Your task to perform on an android device: check out phone information Image 0: 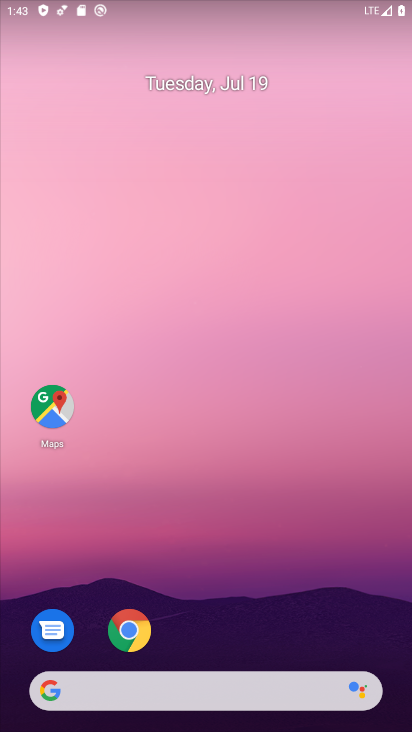
Step 0: press home button
Your task to perform on an android device: check out phone information Image 1: 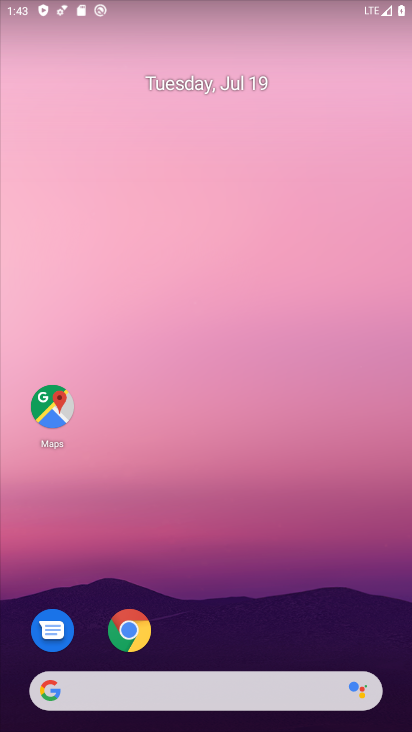
Step 1: drag from (230, 642) to (221, 0)
Your task to perform on an android device: check out phone information Image 2: 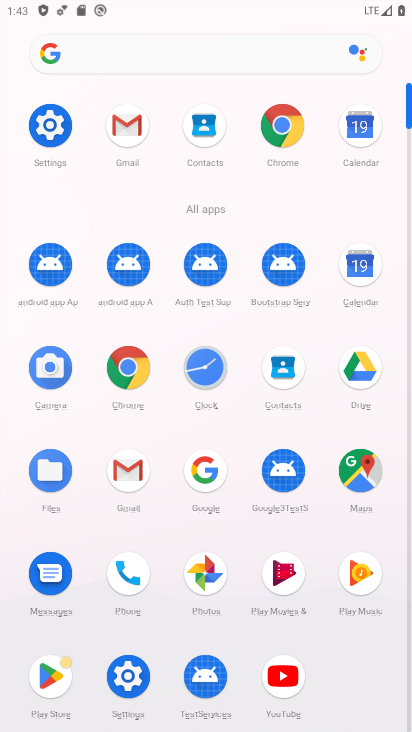
Step 2: click (48, 119)
Your task to perform on an android device: check out phone information Image 3: 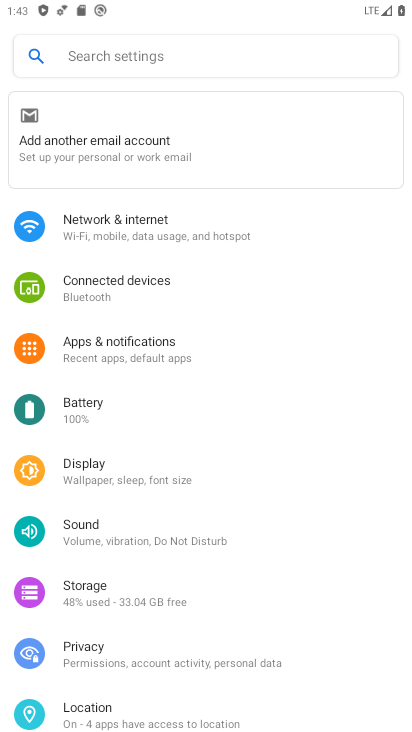
Step 3: drag from (125, 687) to (150, 66)
Your task to perform on an android device: check out phone information Image 4: 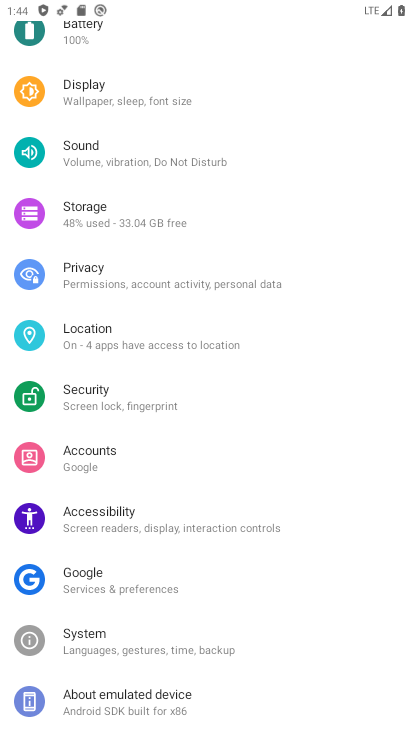
Step 4: click (154, 690)
Your task to perform on an android device: check out phone information Image 5: 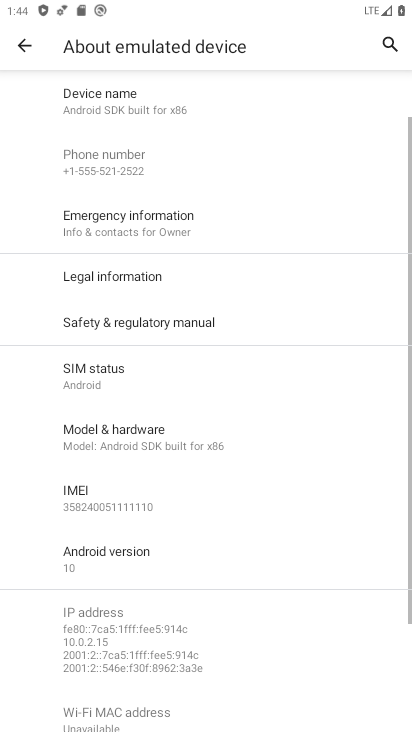
Step 5: task complete